Your task to perform on an android device: Go to Google Image 0: 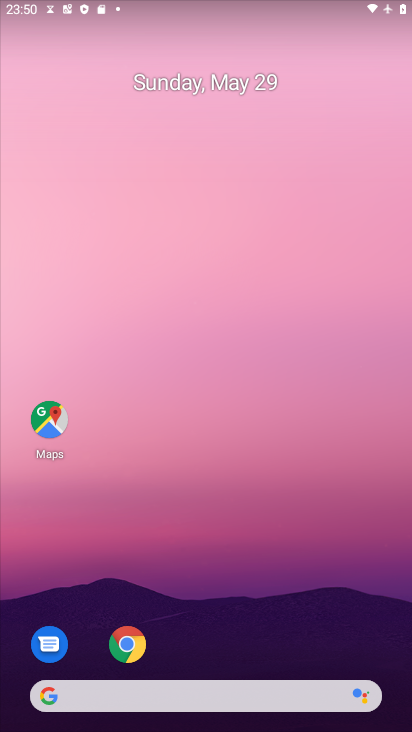
Step 0: drag from (219, 456) to (212, 260)
Your task to perform on an android device: Go to Google Image 1: 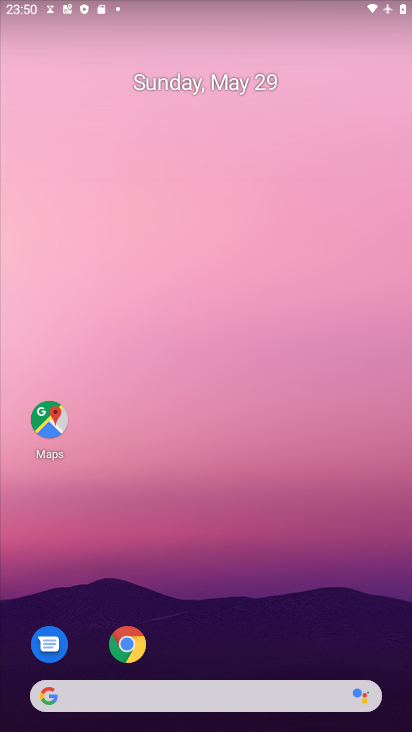
Step 1: drag from (221, 553) to (183, 204)
Your task to perform on an android device: Go to Google Image 2: 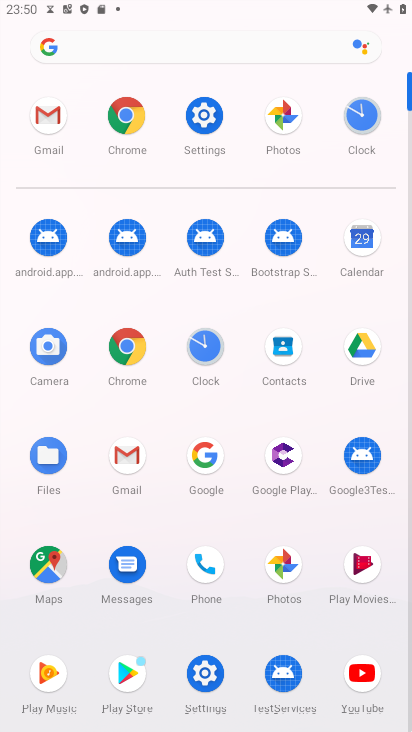
Step 2: click (207, 450)
Your task to perform on an android device: Go to Google Image 3: 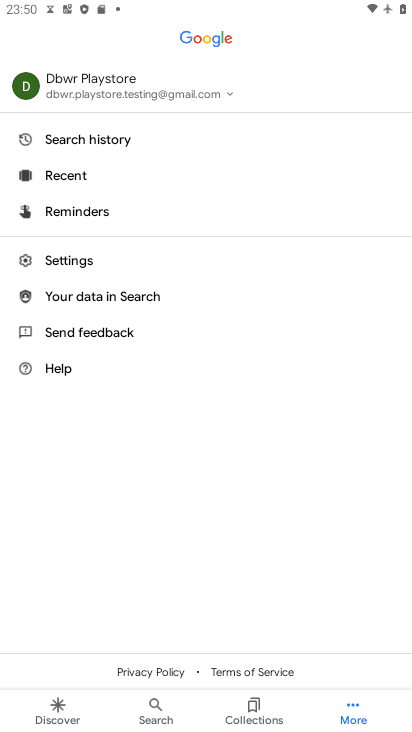
Step 3: task complete